Your task to perform on an android device: Open privacy settings Image 0: 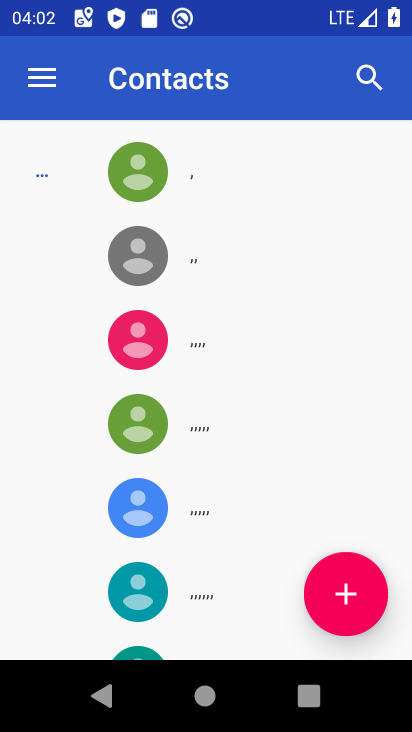
Step 0: press home button
Your task to perform on an android device: Open privacy settings Image 1: 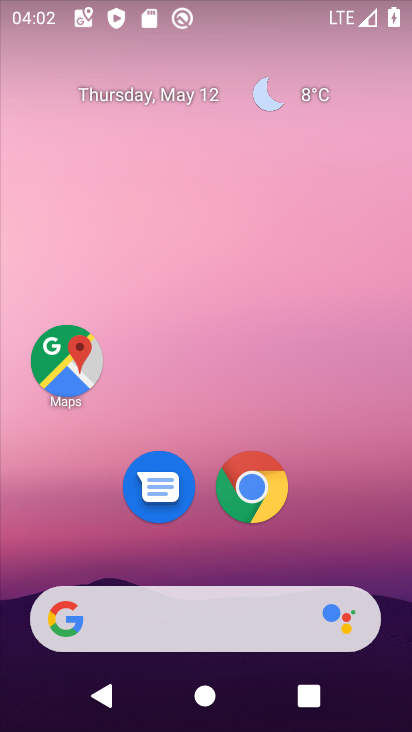
Step 1: drag from (347, 517) to (250, 77)
Your task to perform on an android device: Open privacy settings Image 2: 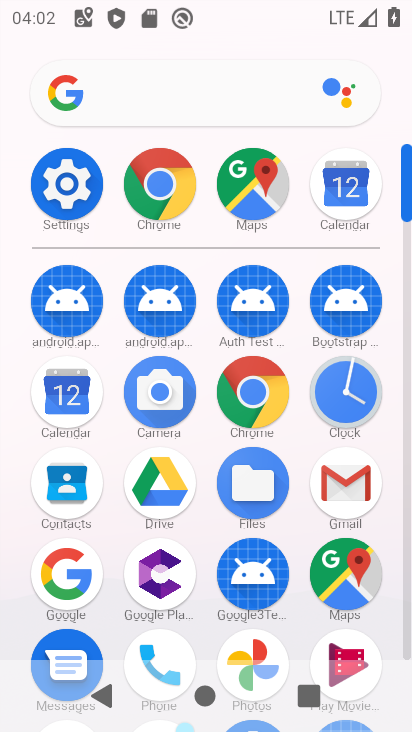
Step 2: click (67, 184)
Your task to perform on an android device: Open privacy settings Image 3: 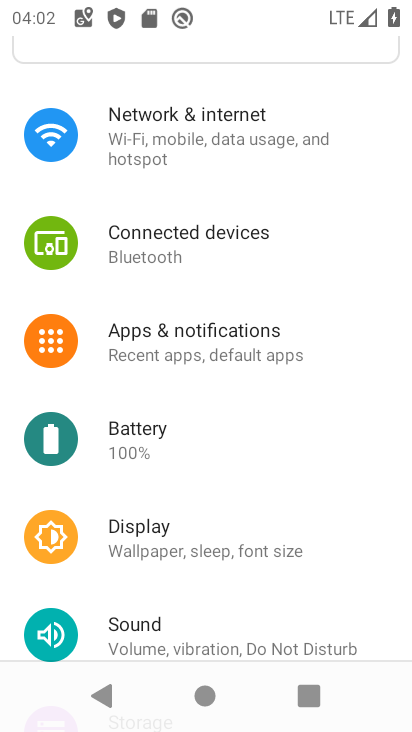
Step 3: drag from (283, 573) to (133, 22)
Your task to perform on an android device: Open privacy settings Image 4: 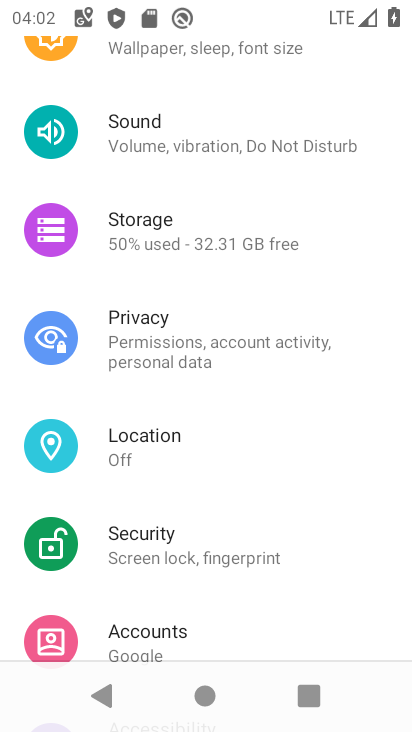
Step 4: click (179, 330)
Your task to perform on an android device: Open privacy settings Image 5: 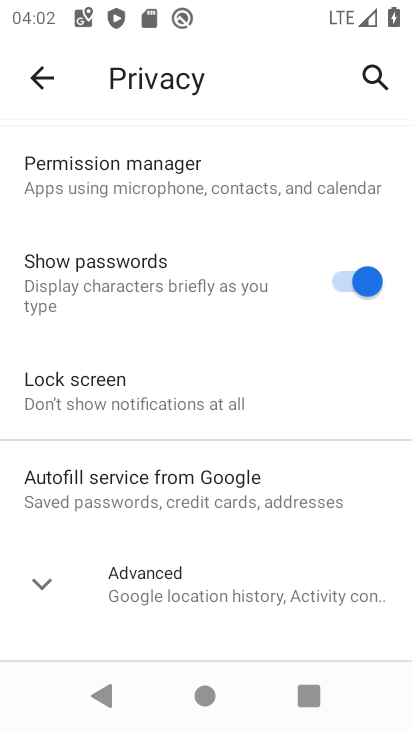
Step 5: task complete